Your task to perform on an android device: turn on priority inbox in the gmail app Image 0: 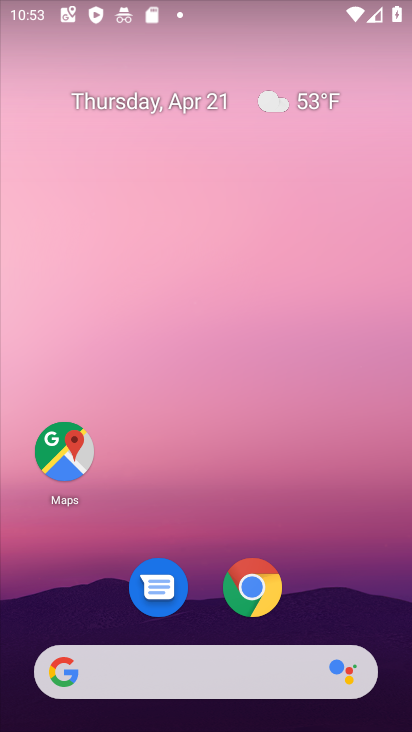
Step 0: drag from (131, 629) to (147, 196)
Your task to perform on an android device: turn on priority inbox in the gmail app Image 1: 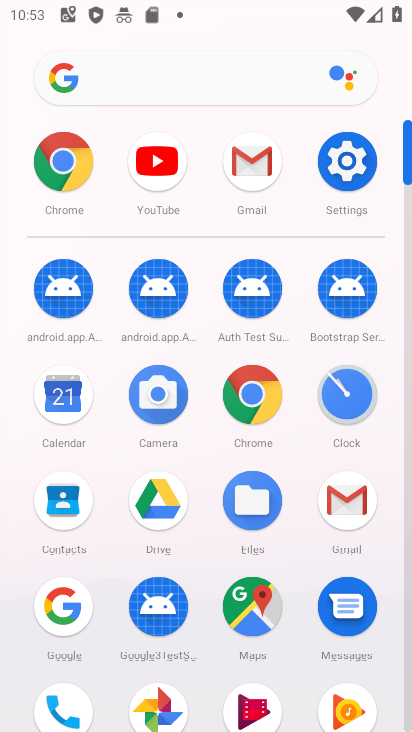
Step 1: click (336, 493)
Your task to perform on an android device: turn on priority inbox in the gmail app Image 2: 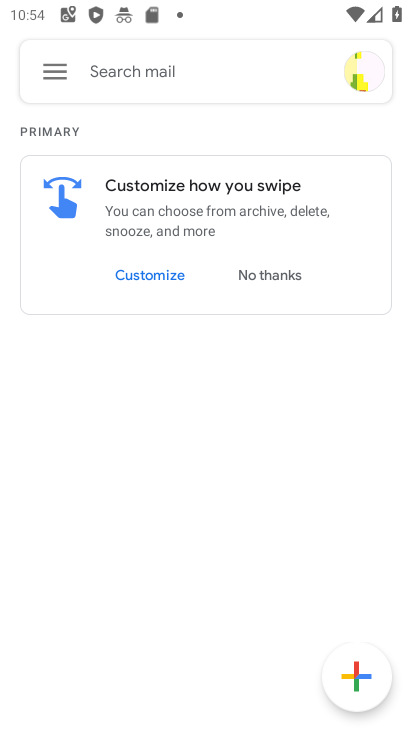
Step 2: drag from (57, 85) to (151, 237)
Your task to perform on an android device: turn on priority inbox in the gmail app Image 3: 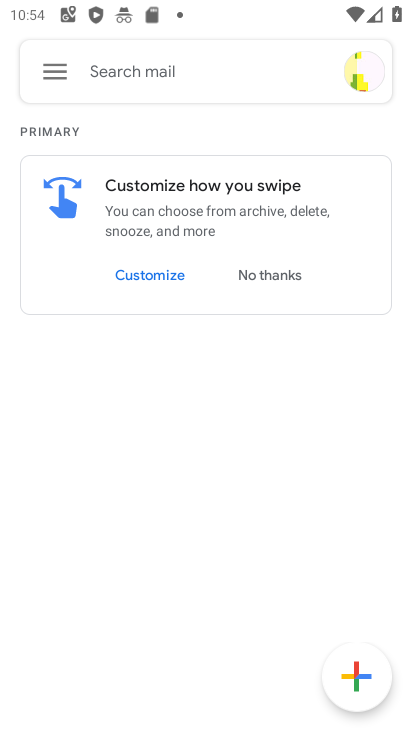
Step 3: click (54, 60)
Your task to perform on an android device: turn on priority inbox in the gmail app Image 4: 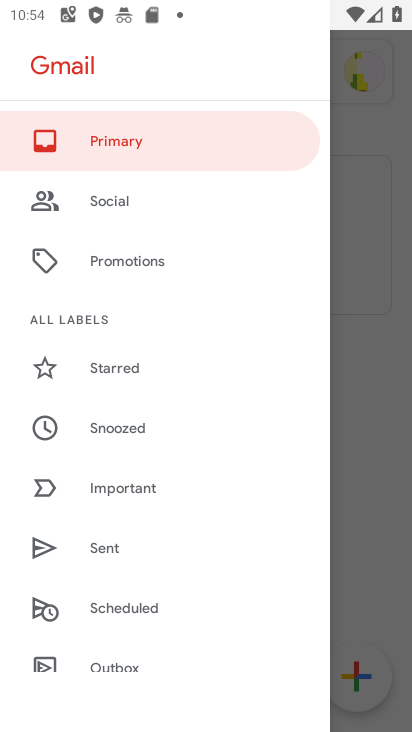
Step 4: drag from (126, 503) to (9, 522)
Your task to perform on an android device: turn on priority inbox in the gmail app Image 5: 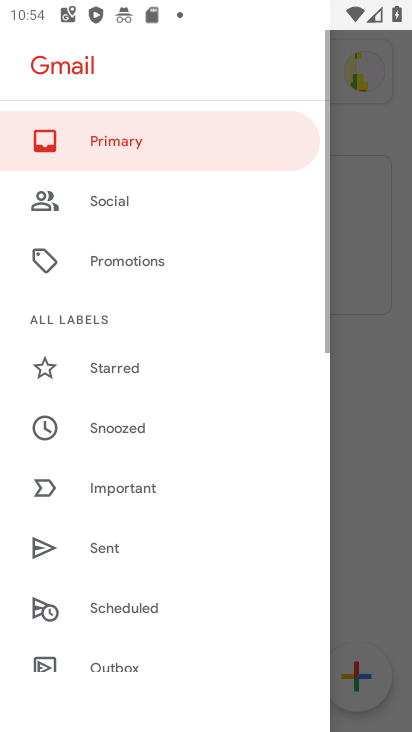
Step 5: drag from (107, 586) to (147, 137)
Your task to perform on an android device: turn on priority inbox in the gmail app Image 6: 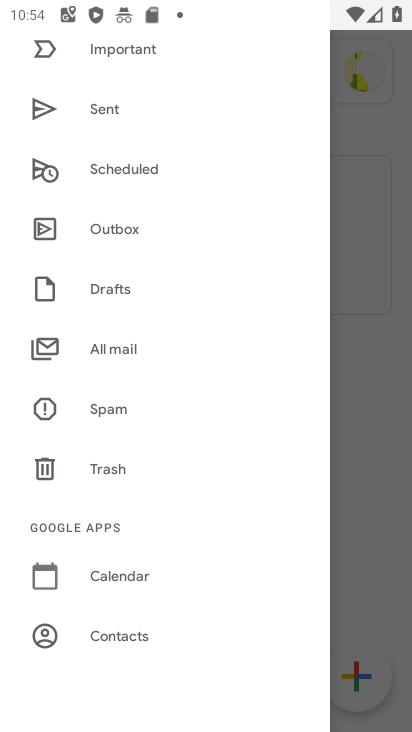
Step 6: drag from (119, 603) to (279, 0)
Your task to perform on an android device: turn on priority inbox in the gmail app Image 7: 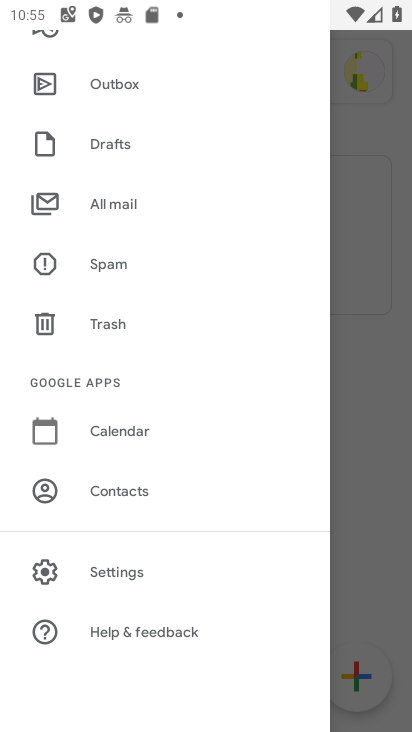
Step 7: click (92, 579)
Your task to perform on an android device: turn on priority inbox in the gmail app Image 8: 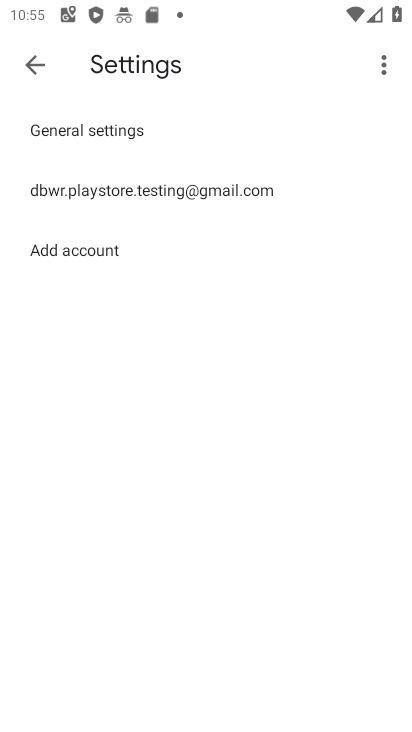
Step 8: click (160, 180)
Your task to perform on an android device: turn on priority inbox in the gmail app Image 9: 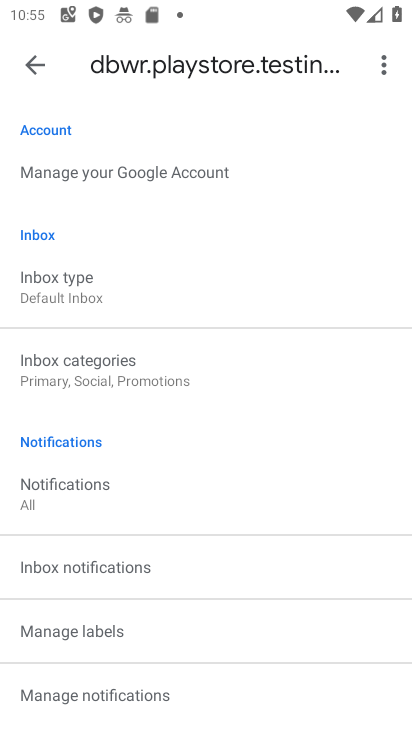
Step 9: click (92, 290)
Your task to perform on an android device: turn on priority inbox in the gmail app Image 10: 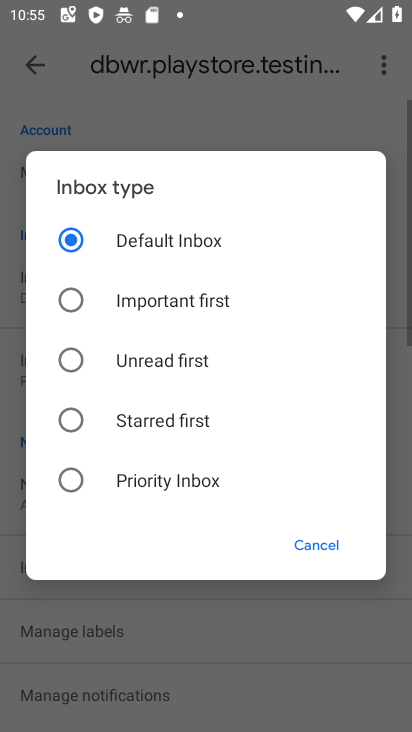
Step 10: click (158, 496)
Your task to perform on an android device: turn on priority inbox in the gmail app Image 11: 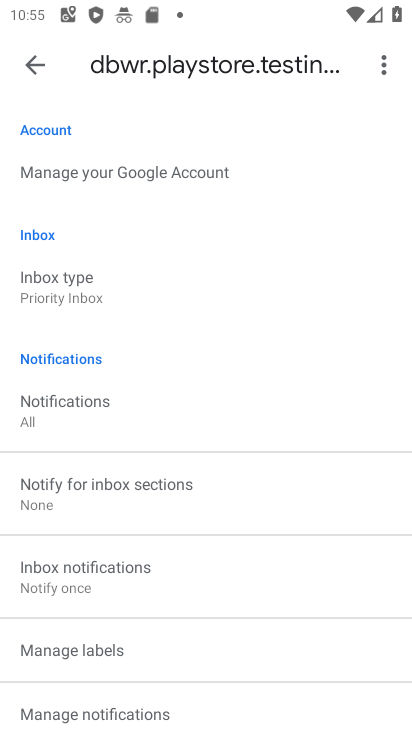
Step 11: task complete